Your task to perform on an android device: change the clock display to show seconds Image 0: 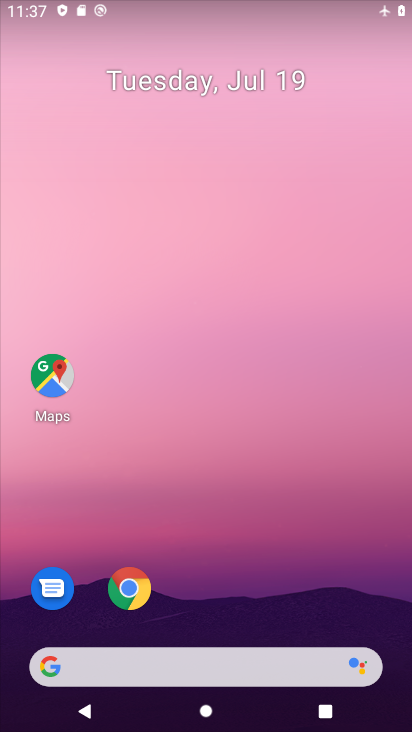
Step 0: drag from (373, 614) to (171, 62)
Your task to perform on an android device: change the clock display to show seconds Image 1: 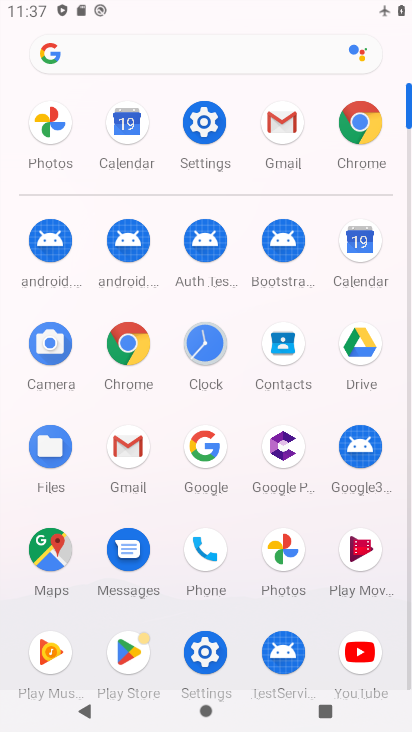
Step 1: click (210, 355)
Your task to perform on an android device: change the clock display to show seconds Image 2: 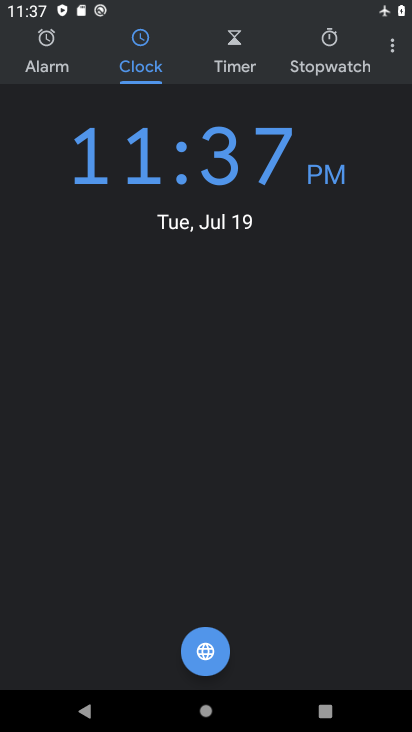
Step 2: click (389, 50)
Your task to perform on an android device: change the clock display to show seconds Image 3: 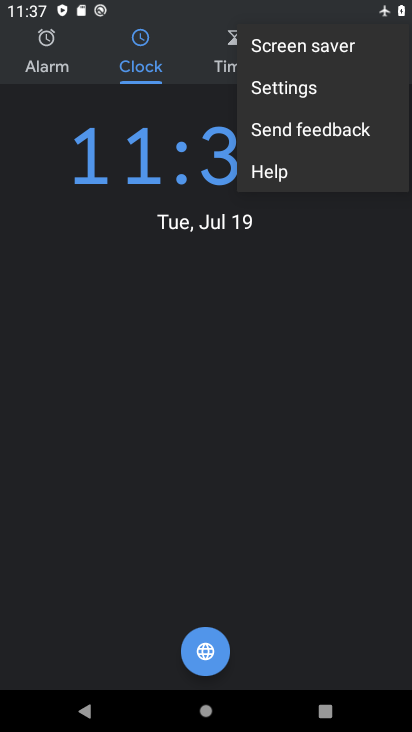
Step 3: click (306, 82)
Your task to perform on an android device: change the clock display to show seconds Image 4: 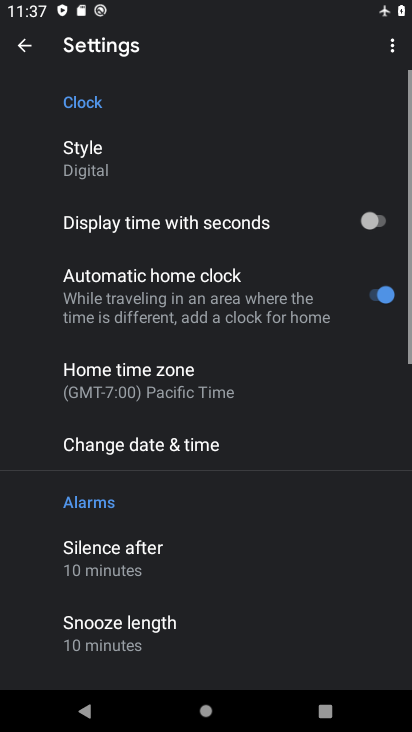
Step 4: click (349, 221)
Your task to perform on an android device: change the clock display to show seconds Image 5: 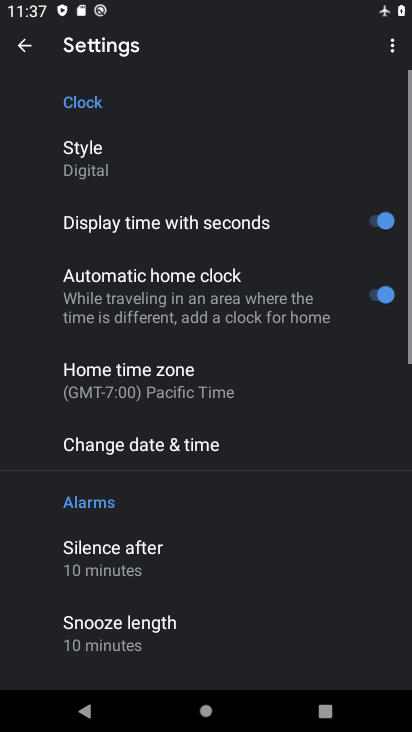
Step 5: task complete